Your task to perform on an android device: create a new album in the google photos Image 0: 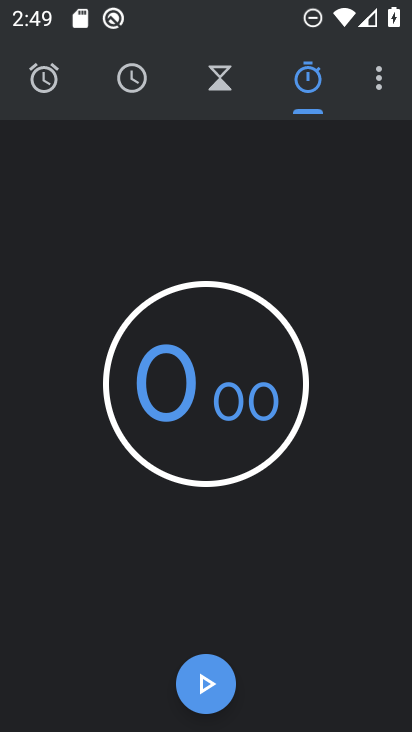
Step 0: press home button
Your task to perform on an android device: create a new album in the google photos Image 1: 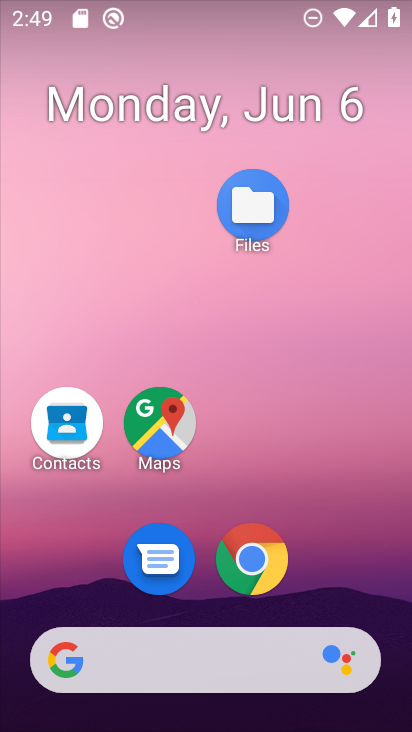
Step 1: drag from (247, 629) to (269, 172)
Your task to perform on an android device: create a new album in the google photos Image 2: 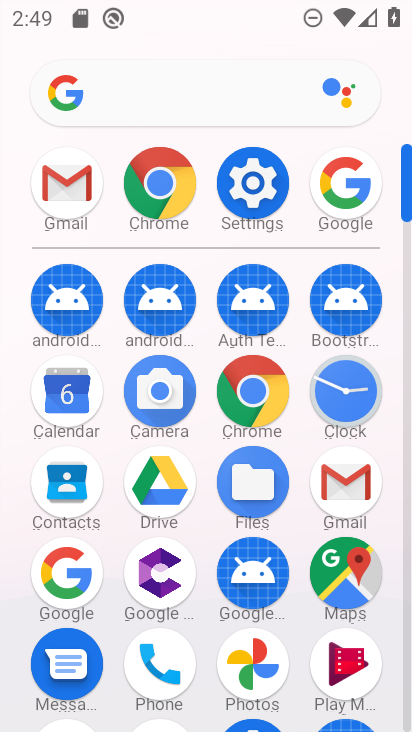
Step 2: click (266, 667)
Your task to perform on an android device: create a new album in the google photos Image 3: 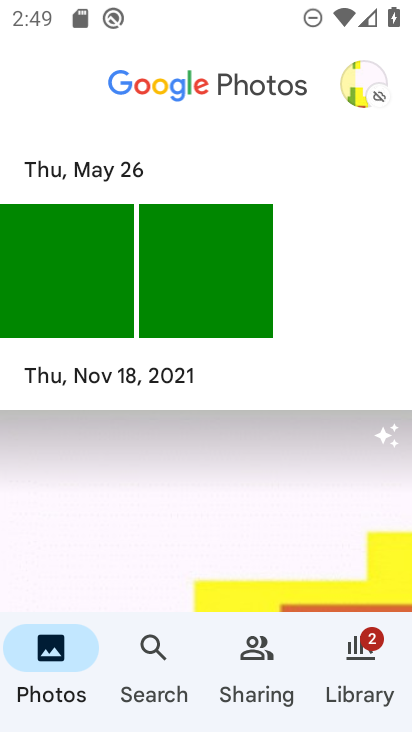
Step 3: drag from (235, 498) to (247, 352)
Your task to perform on an android device: create a new album in the google photos Image 4: 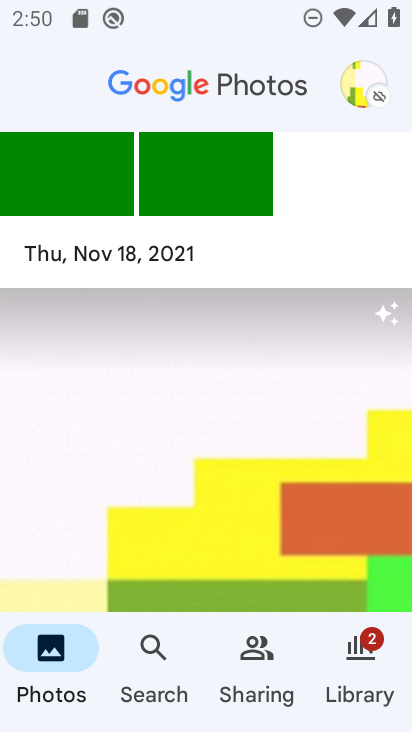
Step 4: drag from (284, 426) to (346, 165)
Your task to perform on an android device: create a new album in the google photos Image 5: 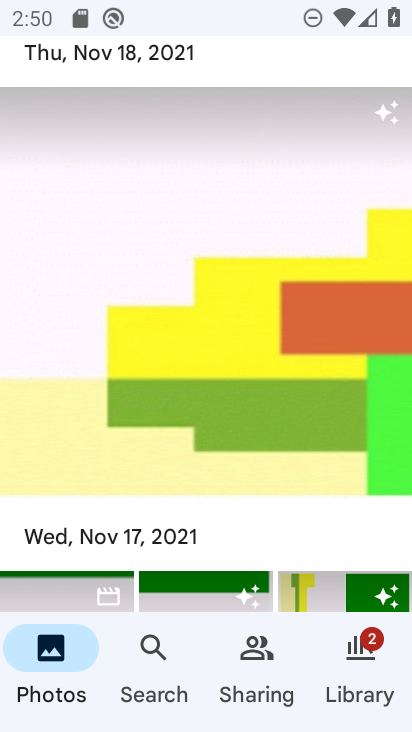
Step 5: drag from (283, 446) to (346, 57)
Your task to perform on an android device: create a new album in the google photos Image 6: 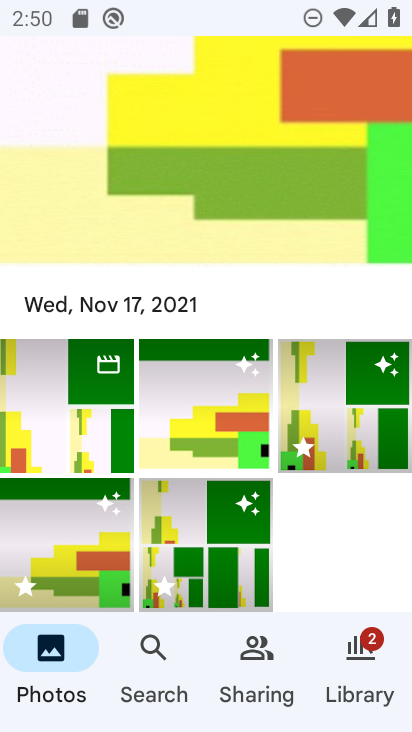
Step 6: click (339, 666)
Your task to perform on an android device: create a new album in the google photos Image 7: 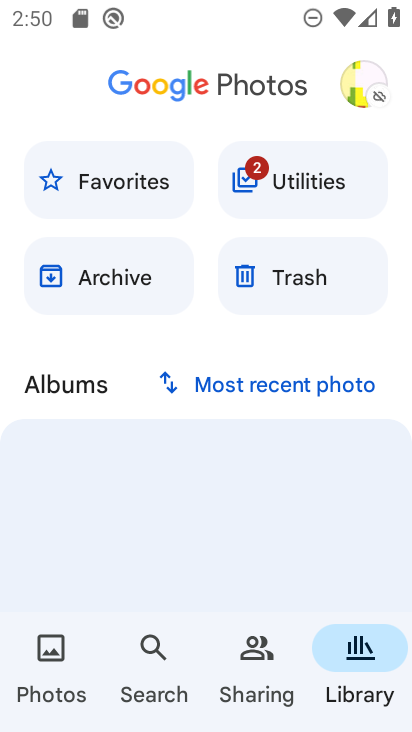
Step 7: drag from (240, 486) to (238, 174)
Your task to perform on an android device: create a new album in the google photos Image 8: 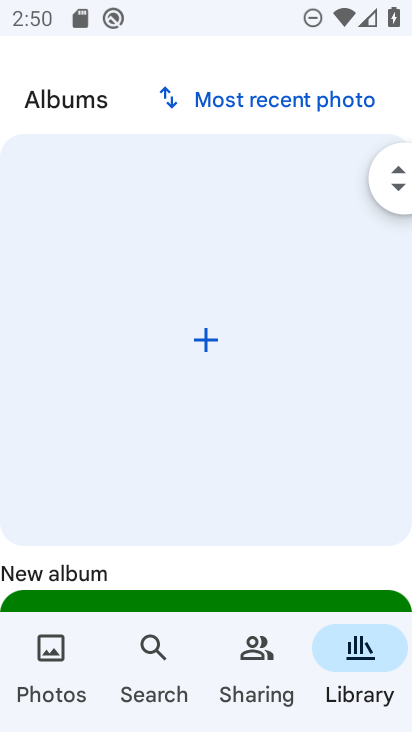
Step 8: click (237, 391)
Your task to perform on an android device: create a new album in the google photos Image 9: 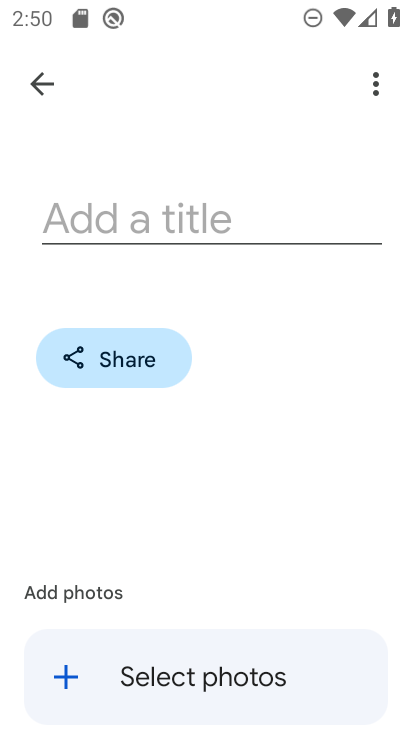
Step 9: click (234, 238)
Your task to perform on an android device: create a new album in the google photos Image 10: 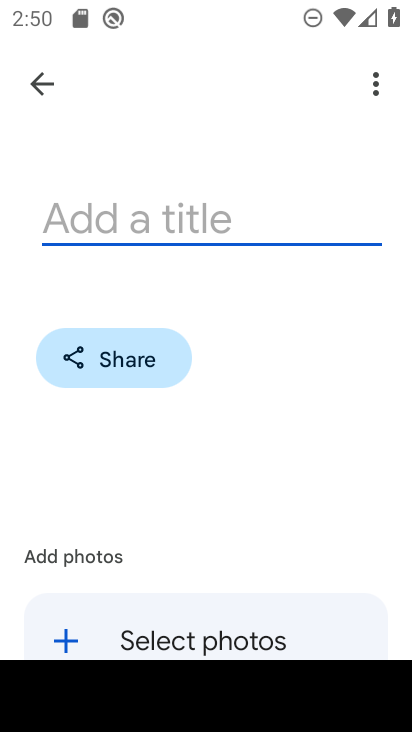
Step 10: type "ghfhfhggg"
Your task to perform on an android device: create a new album in the google photos Image 11: 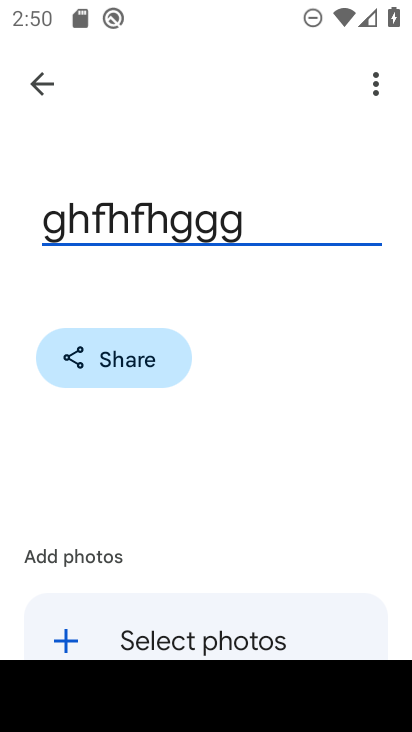
Step 11: click (116, 635)
Your task to perform on an android device: create a new album in the google photos Image 12: 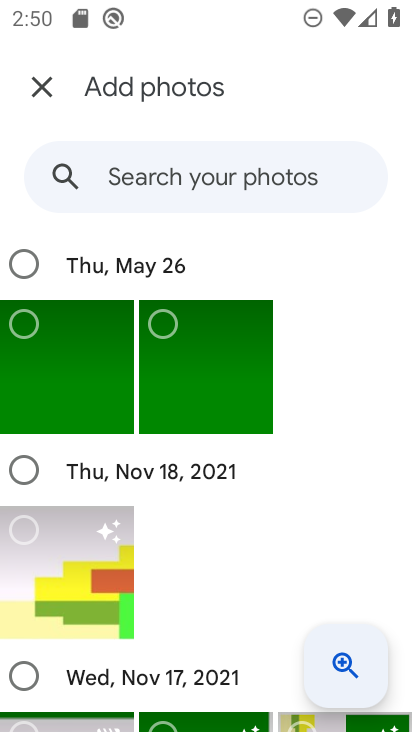
Step 12: click (93, 364)
Your task to perform on an android device: create a new album in the google photos Image 13: 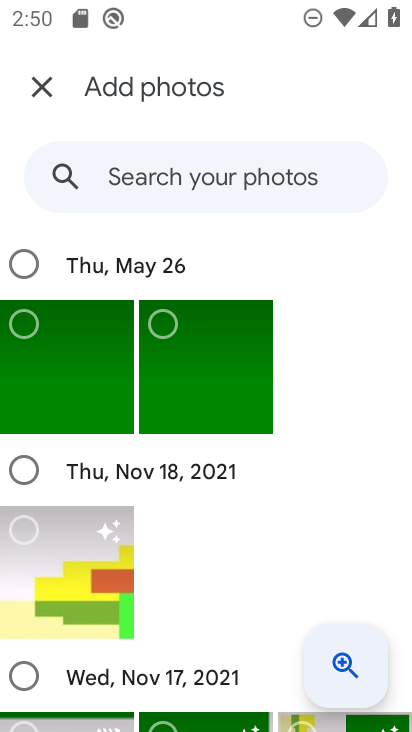
Step 13: click (154, 396)
Your task to perform on an android device: create a new album in the google photos Image 14: 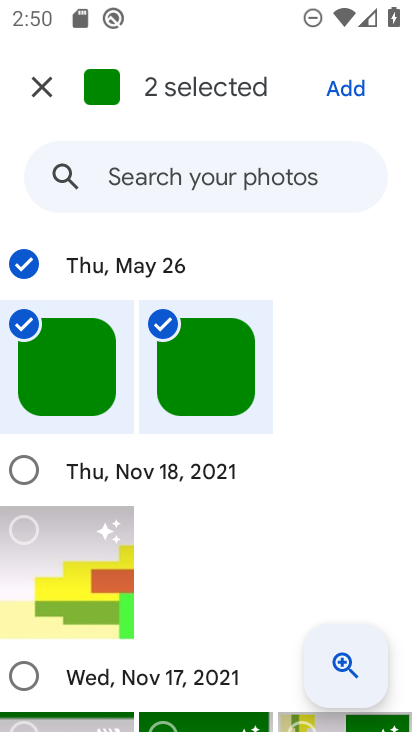
Step 14: click (60, 610)
Your task to perform on an android device: create a new album in the google photos Image 15: 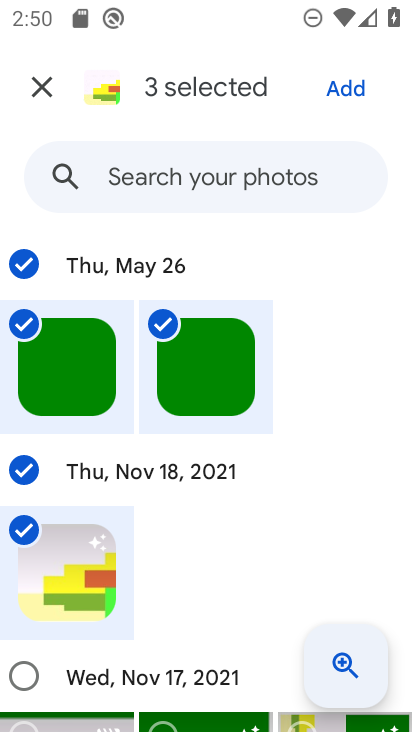
Step 15: click (359, 94)
Your task to perform on an android device: create a new album in the google photos Image 16: 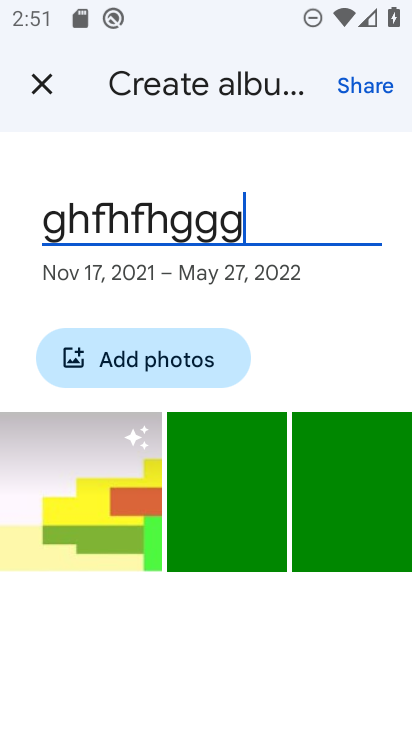
Step 16: task complete